Your task to perform on an android device: toggle show notifications on the lock screen Image 0: 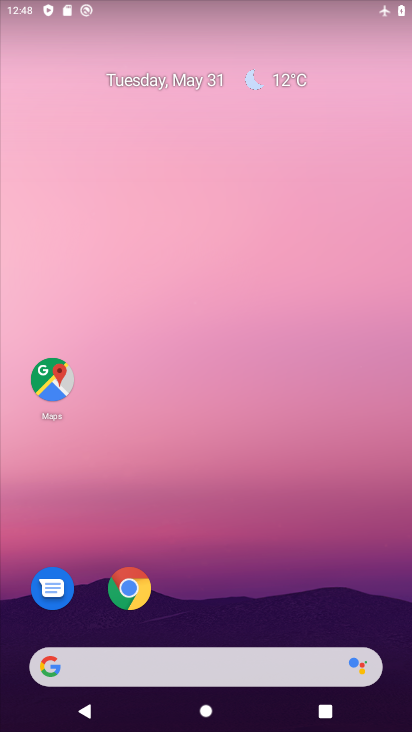
Step 0: drag from (397, 709) to (334, 245)
Your task to perform on an android device: toggle show notifications on the lock screen Image 1: 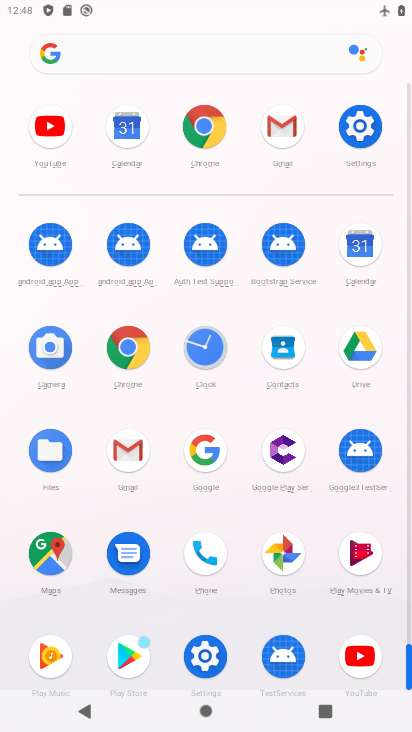
Step 1: click (357, 126)
Your task to perform on an android device: toggle show notifications on the lock screen Image 2: 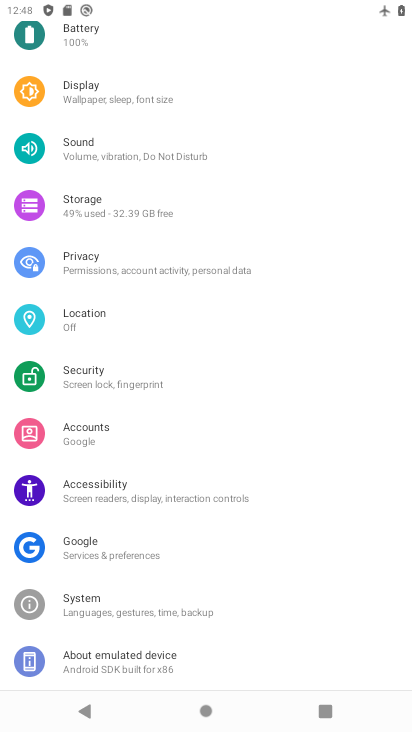
Step 2: drag from (268, 109) to (267, 561)
Your task to perform on an android device: toggle show notifications on the lock screen Image 3: 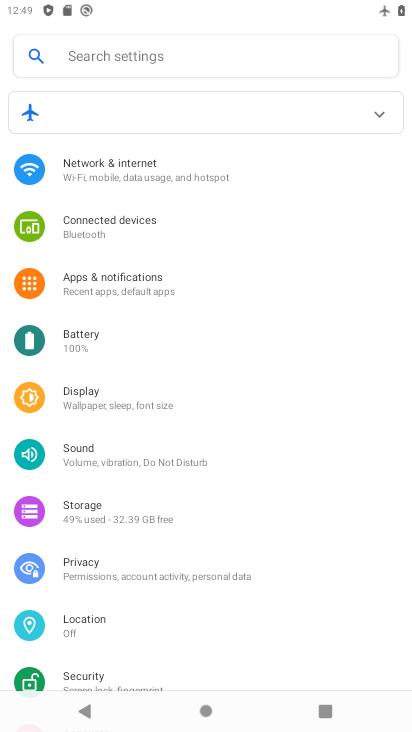
Step 3: click (132, 281)
Your task to perform on an android device: toggle show notifications on the lock screen Image 4: 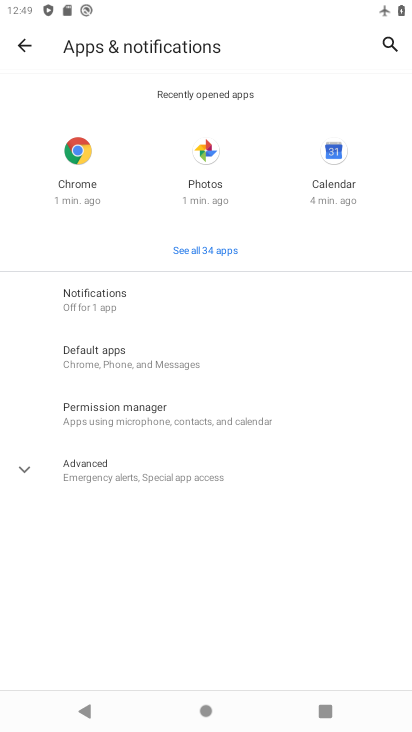
Step 4: click (26, 473)
Your task to perform on an android device: toggle show notifications on the lock screen Image 5: 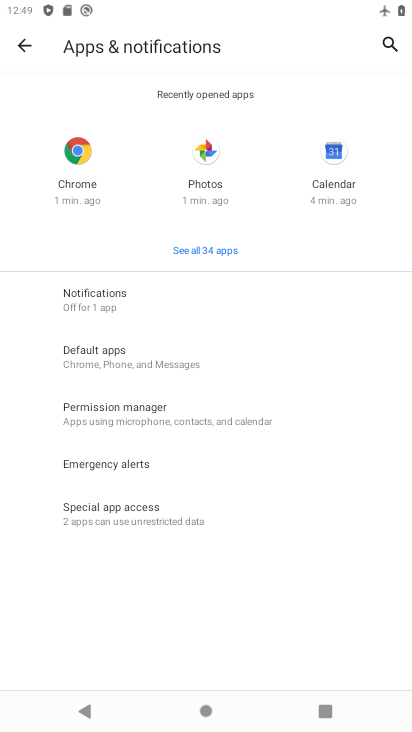
Step 5: click (89, 286)
Your task to perform on an android device: toggle show notifications on the lock screen Image 6: 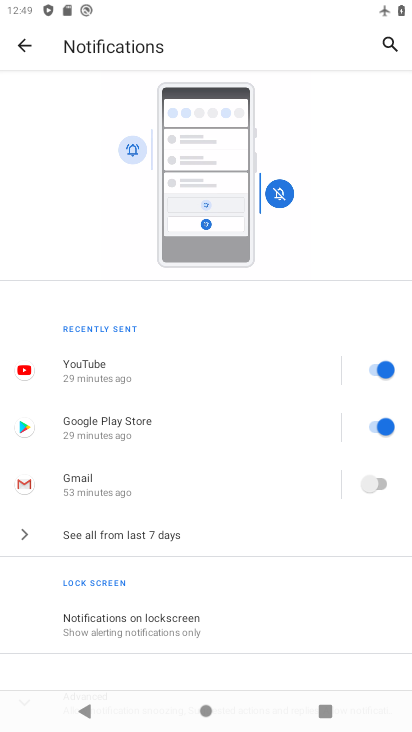
Step 6: drag from (237, 633) to (238, 351)
Your task to perform on an android device: toggle show notifications on the lock screen Image 7: 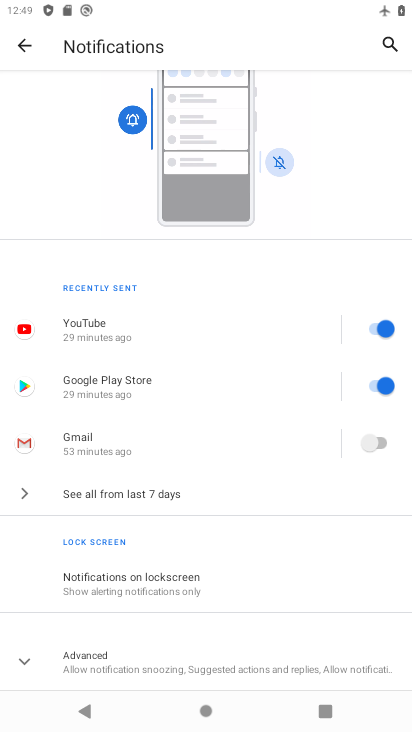
Step 7: drag from (259, 629) to (255, 359)
Your task to perform on an android device: toggle show notifications on the lock screen Image 8: 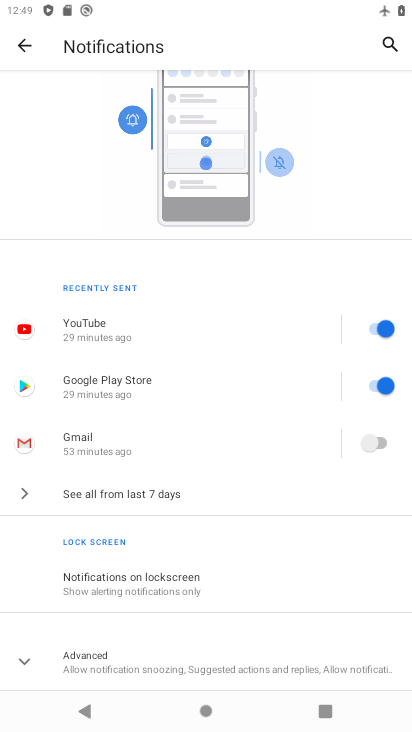
Step 8: click (97, 578)
Your task to perform on an android device: toggle show notifications on the lock screen Image 9: 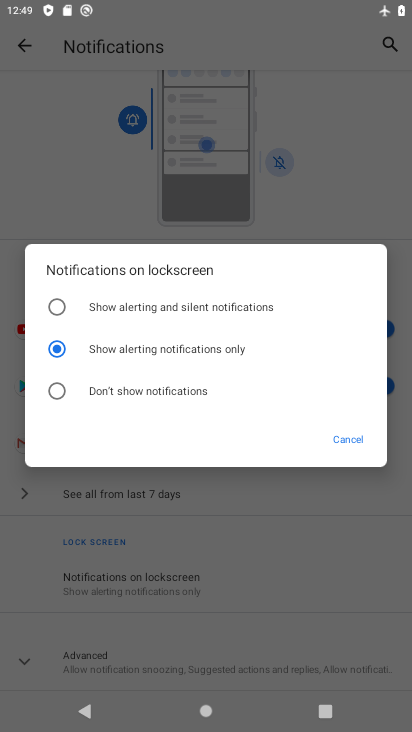
Step 9: click (54, 311)
Your task to perform on an android device: toggle show notifications on the lock screen Image 10: 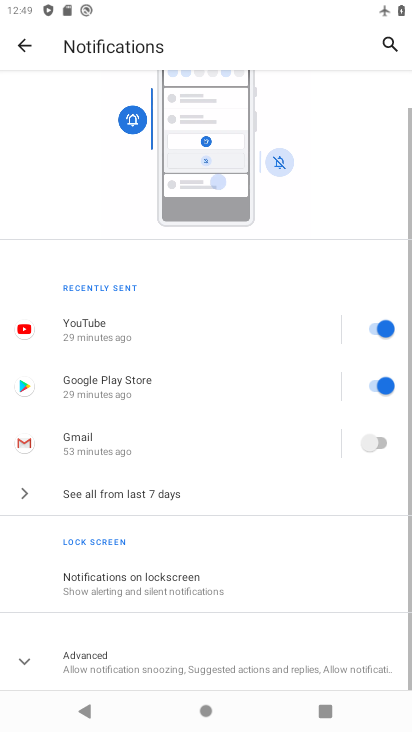
Step 10: task complete